Your task to perform on an android device: turn vacation reply on in the gmail app Image 0: 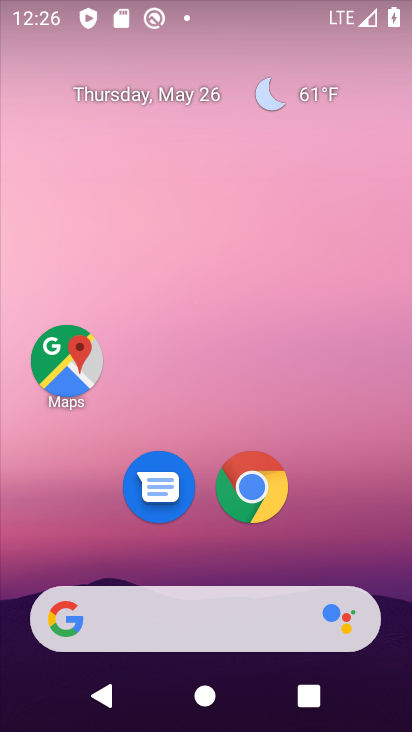
Step 0: drag from (261, 593) to (207, 107)
Your task to perform on an android device: turn vacation reply on in the gmail app Image 1: 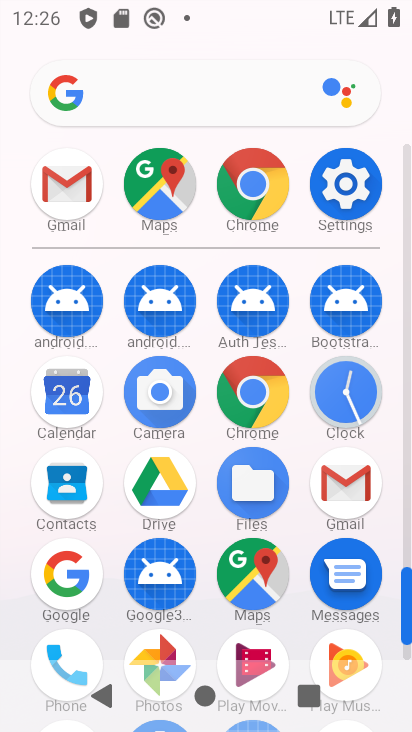
Step 1: click (339, 486)
Your task to perform on an android device: turn vacation reply on in the gmail app Image 2: 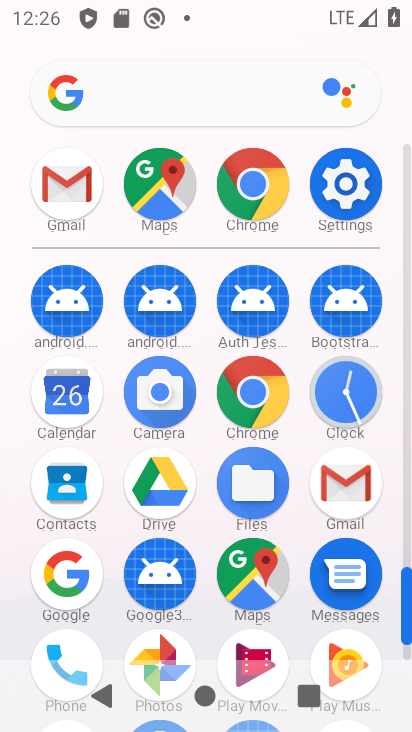
Step 2: click (339, 486)
Your task to perform on an android device: turn vacation reply on in the gmail app Image 3: 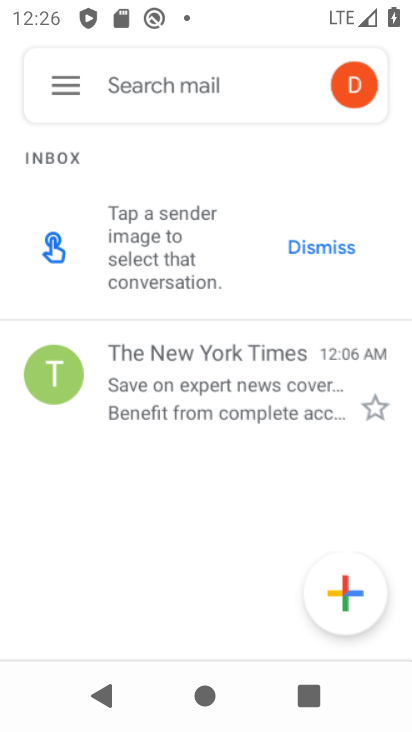
Step 3: click (338, 486)
Your task to perform on an android device: turn vacation reply on in the gmail app Image 4: 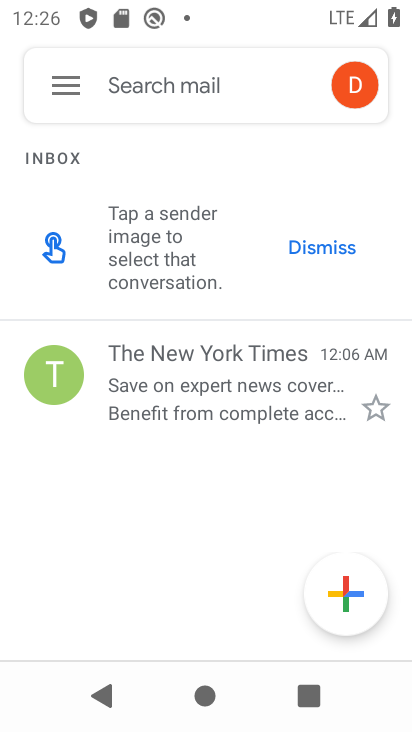
Step 4: click (337, 486)
Your task to perform on an android device: turn vacation reply on in the gmail app Image 5: 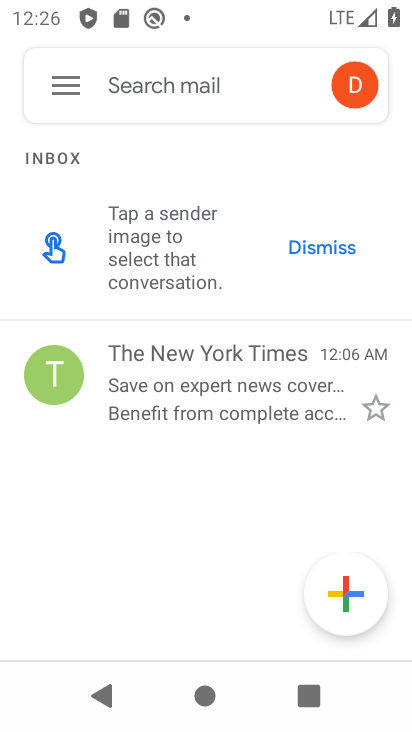
Step 5: click (336, 487)
Your task to perform on an android device: turn vacation reply on in the gmail app Image 6: 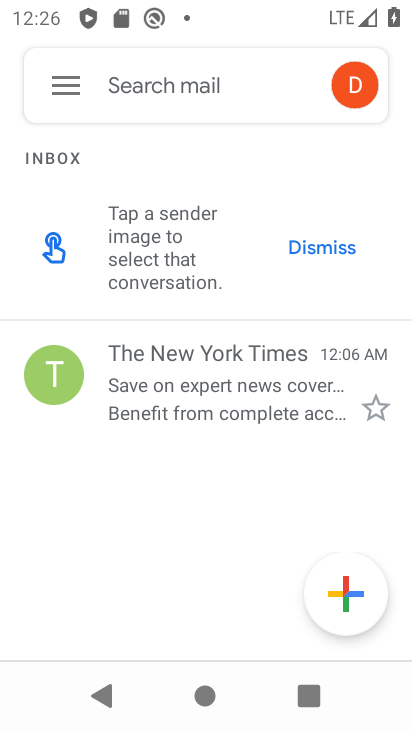
Step 6: click (336, 487)
Your task to perform on an android device: turn vacation reply on in the gmail app Image 7: 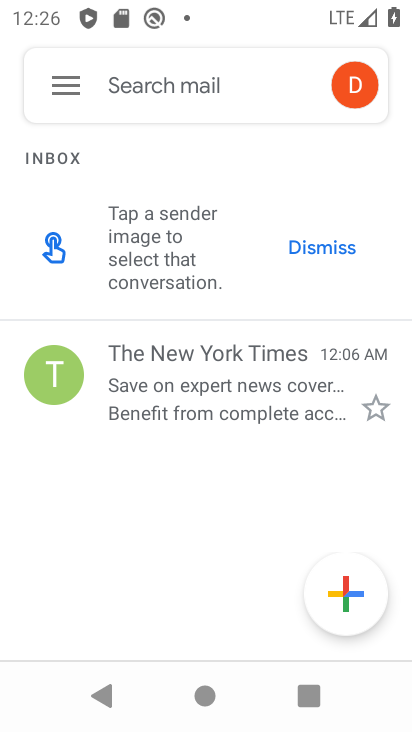
Step 7: press back button
Your task to perform on an android device: turn vacation reply on in the gmail app Image 8: 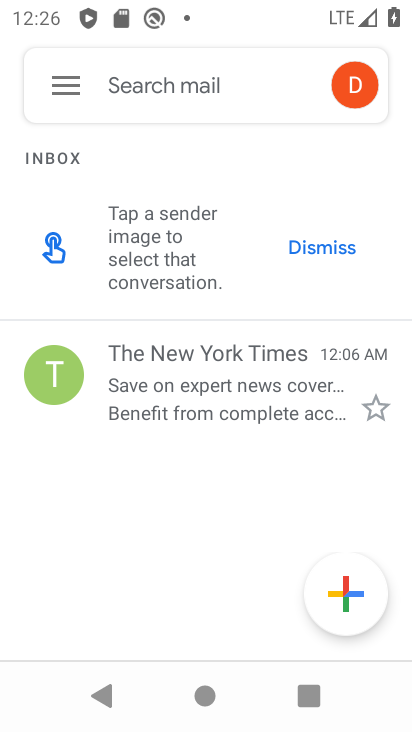
Step 8: press back button
Your task to perform on an android device: turn vacation reply on in the gmail app Image 9: 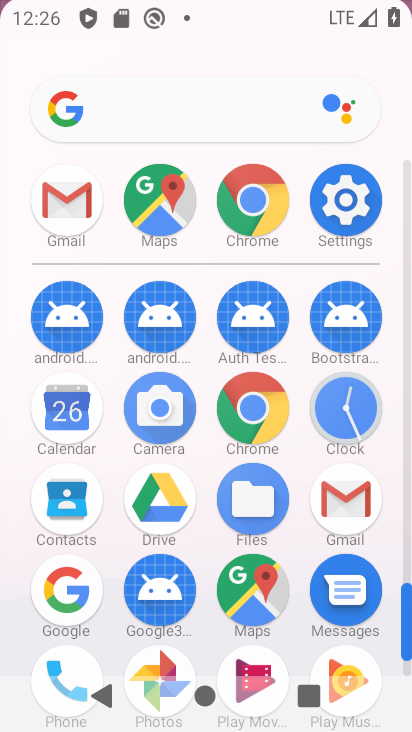
Step 9: press back button
Your task to perform on an android device: turn vacation reply on in the gmail app Image 10: 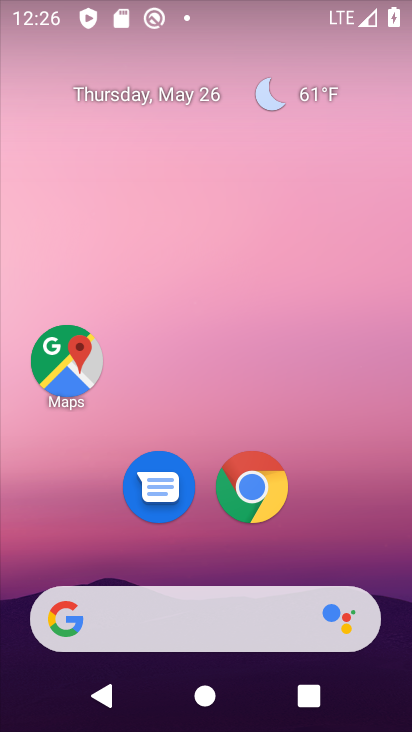
Step 10: drag from (370, 624) to (227, 161)
Your task to perform on an android device: turn vacation reply on in the gmail app Image 11: 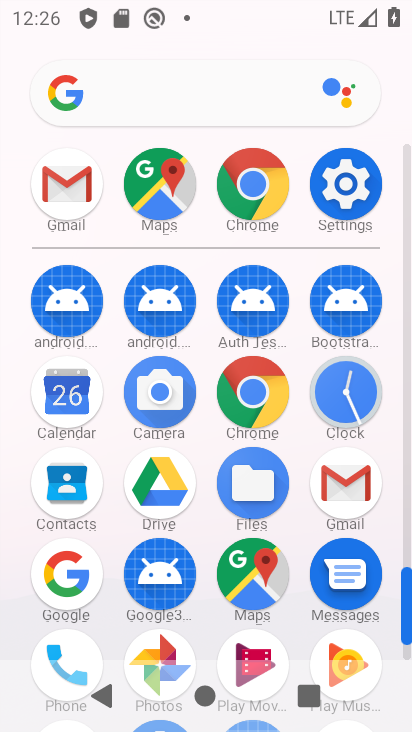
Step 11: click (358, 472)
Your task to perform on an android device: turn vacation reply on in the gmail app Image 12: 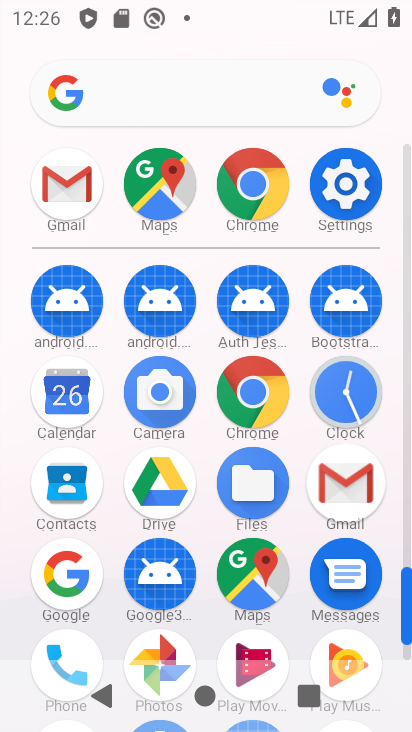
Step 12: click (362, 477)
Your task to perform on an android device: turn vacation reply on in the gmail app Image 13: 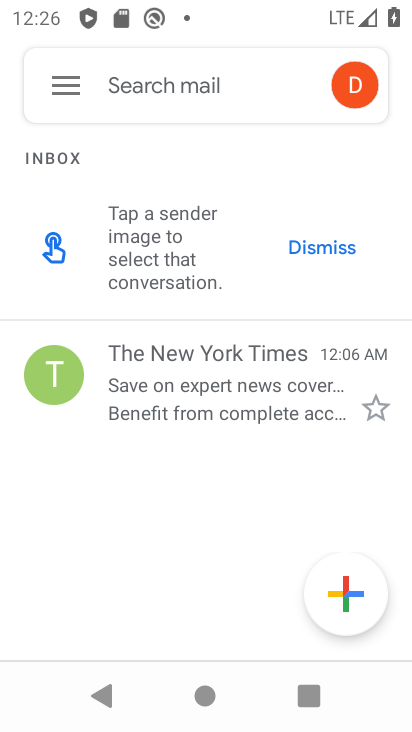
Step 13: click (69, 89)
Your task to perform on an android device: turn vacation reply on in the gmail app Image 14: 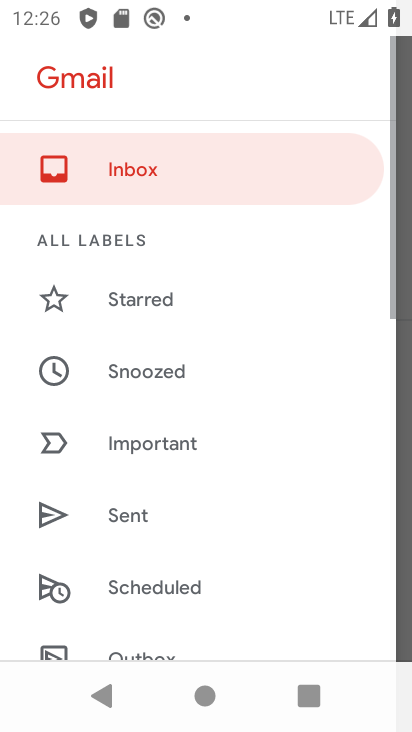
Step 14: drag from (160, 568) to (101, 177)
Your task to perform on an android device: turn vacation reply on in the gmail app Image 15: 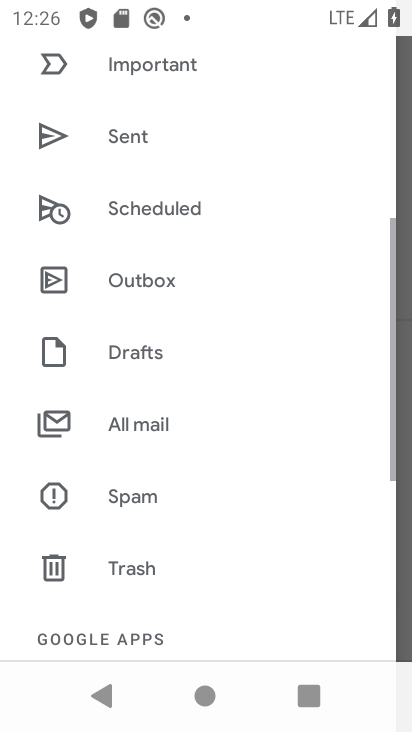
Step 15: drag from (171, 513) to (204, 161)
Your task to perform on an android device: turn vacation reply on in the gmail app Image 16: 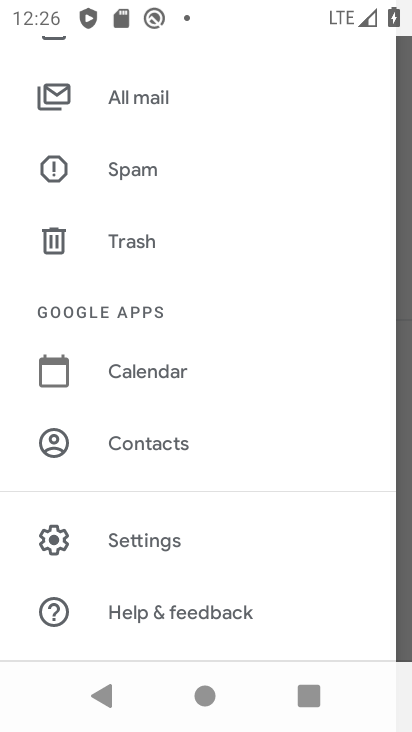
Step 16: click (143, 541)
Your task to perform on an android device: turn vacation reply on in the gmail app Image 17: 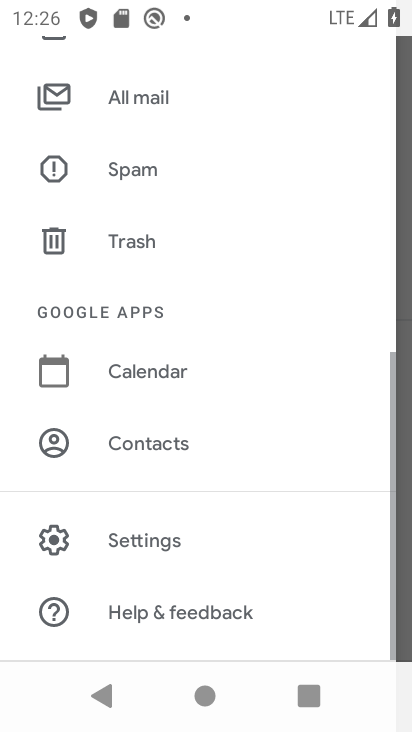
Step 17: click (145, 537)
Your task to perform on an android device: turn vacation reply on in the gmail app Image 18: 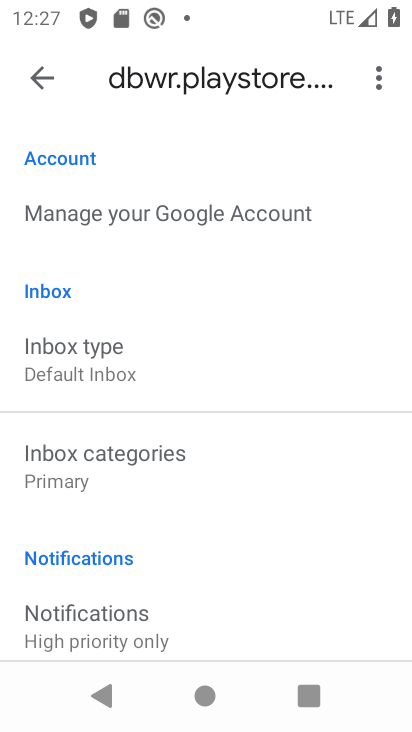
Step 18: task complete